Your task to perform on an android device: visit the assistant section in the google photos Image 0: 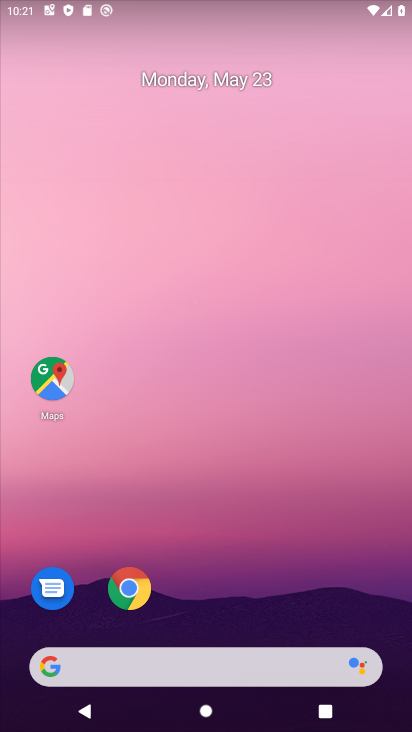
Step 0: drag from (309, 592) to (272, 112)
Your task to perform on an android device: visit the assistant section in the google photos Image 1: 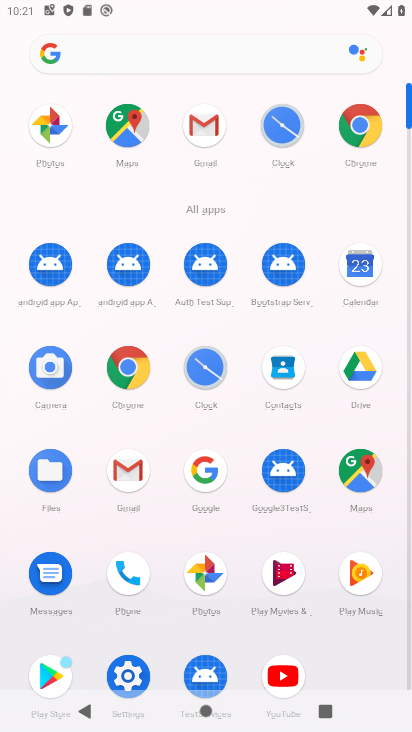
Step 1: click (210, 567)
Your task to perform on an android device: visit the assistant section in the google photos Image 2: 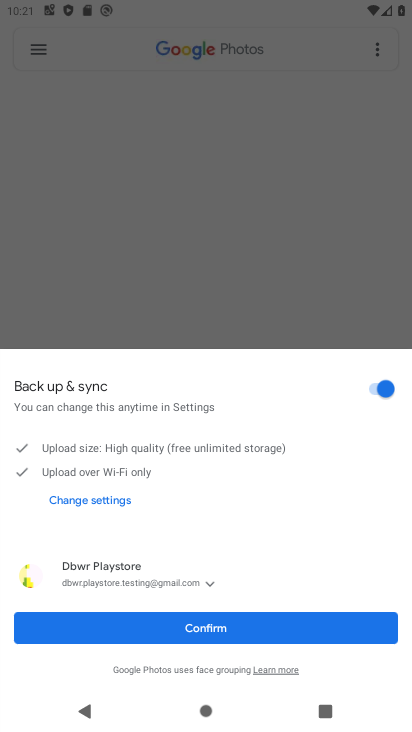
Step 2: click (260, 637)
Your task to perform on an android device: visit the assistant section in the google photos Image 3: 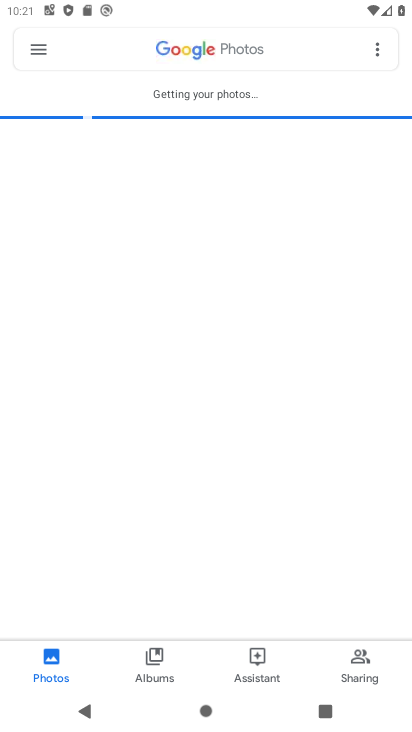
Step 3: click (249, 666)
Your task to perform on an android device: visit the assistant section in the google photos Image 4: 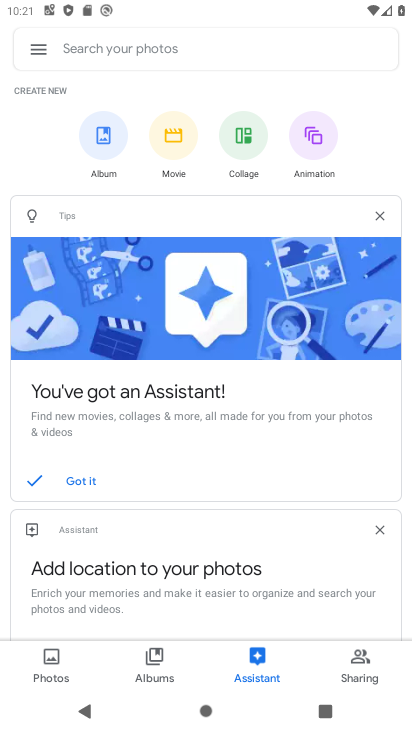
Step 4: task complete